Your task to perform on an android device: check android version Image 0: 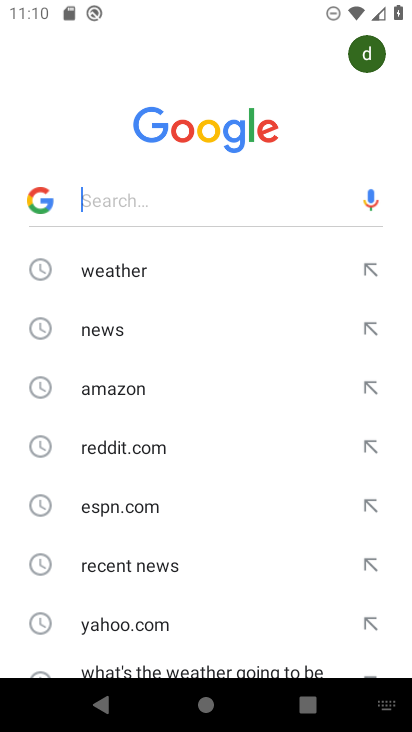
Step 0: press home button
Your task to perform on an android device: check android version Image 1: 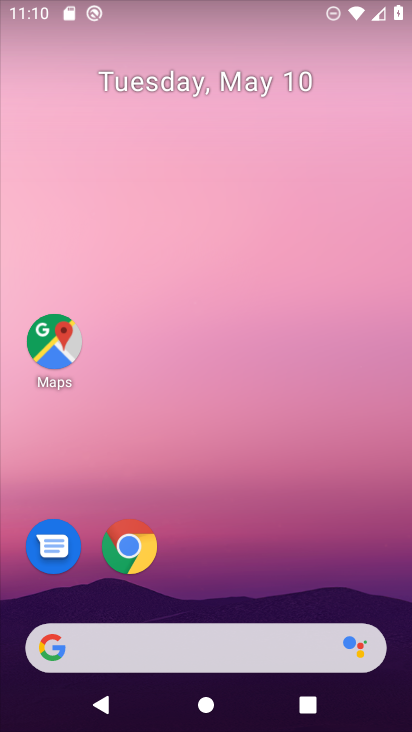
Step 1: drag from (300, 597) to (317, 309)
Your task to perform on an android device: check android version Image 2: 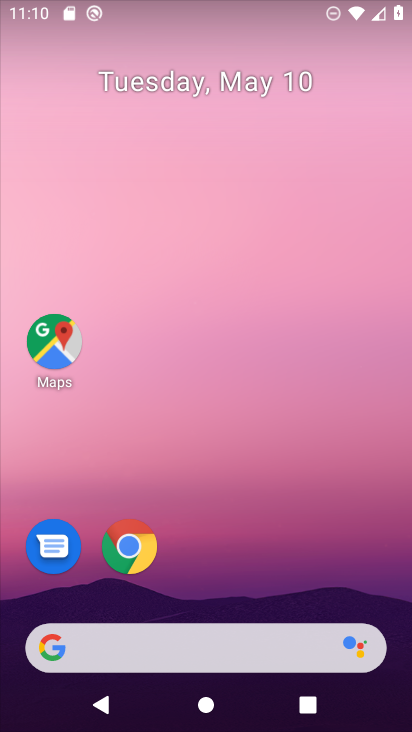
Step 2: drag from (345, 534) to (317, 144)
Your task to perform on an android device: check android version Image 3: 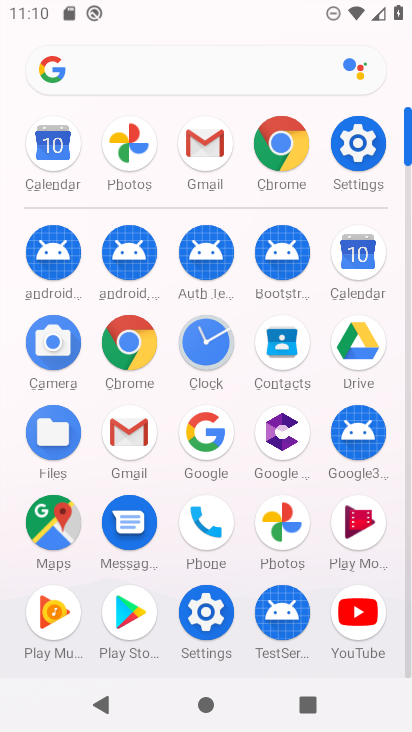
Step 3: click (360, 155)
Your task to perform on an android device: check android version Image 4: 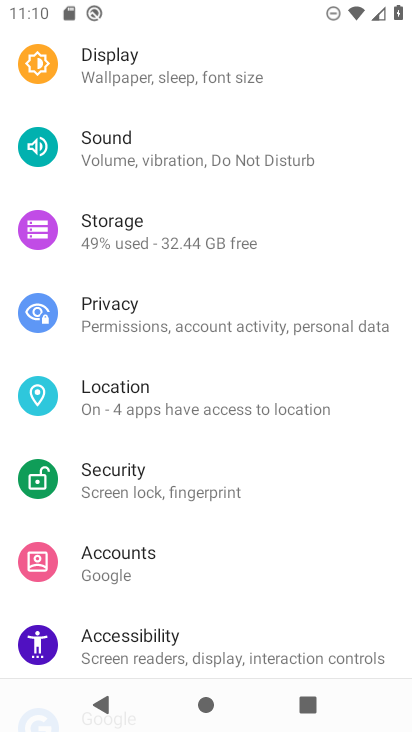
Step 4: drag from (255, 591) to (265, 97)
Your task to perform on an android device: check android version Image 5: 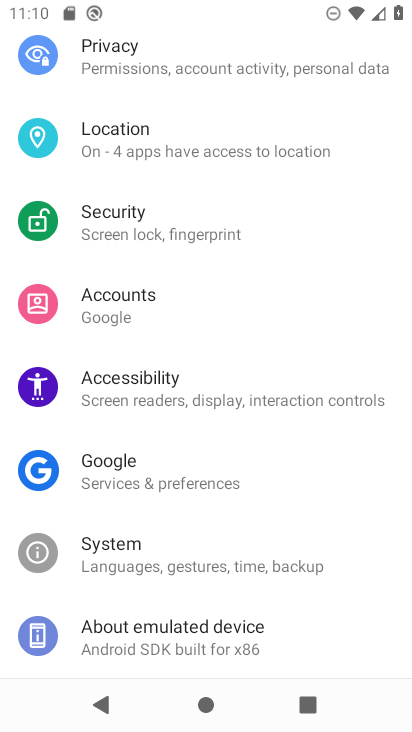
Step 5: click (205, 625)
Your task to perform on an android device: check android version Image 6: 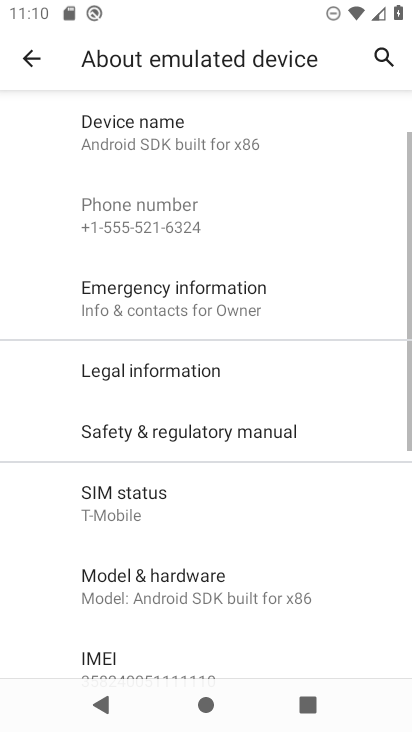
Step 6: task complete